Your task to perform on an android device: turn on the 12-hour format for clock Image 0: 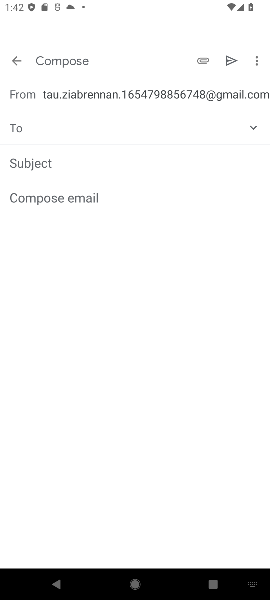
Step 0: press home button
Your task to perform on an android device: turn on the 12-hour format for clock Image 1: 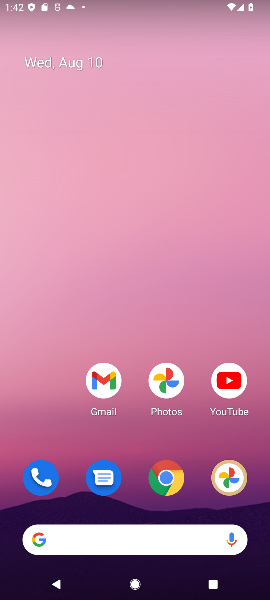
Step 1: drag from (55, 418) to (66, 106)
Your task to perform on an android device: turn on the 12-hour format for clock Image 2: 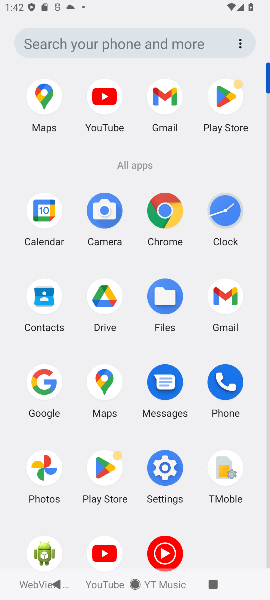
Step 2: click (221, 206)
Your task to perform on an android device: turn on the 12-hour format for clock Image 3: 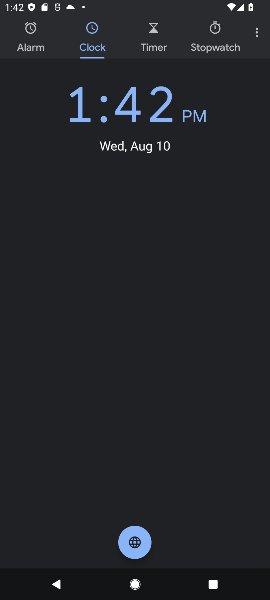
Step 3: task complete